Your task to perform on an android device: Open ESPN.com Image 0: 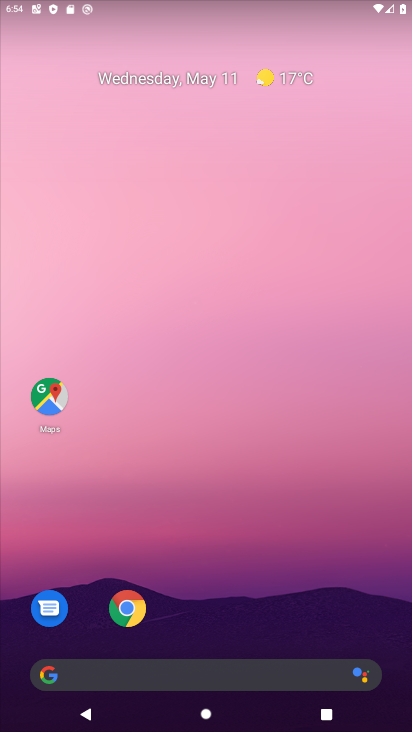
Step 0: click (144, 608)
Your task to perform on an android device: Open ESPN.com Image 1: 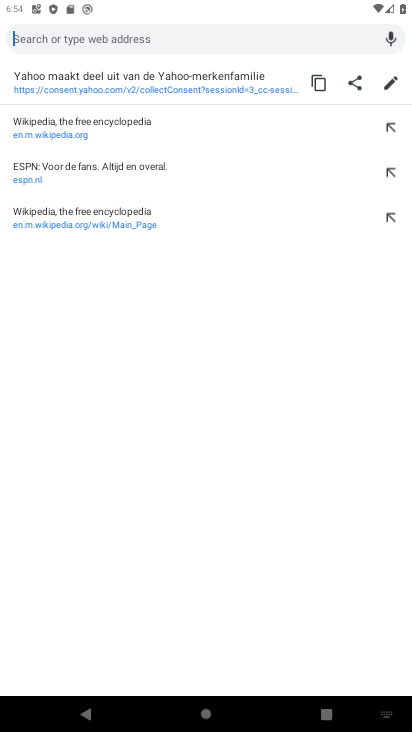
Step 1: click (138, 152)
Your task to perform on an android device: Open ESPN.com Image 2: 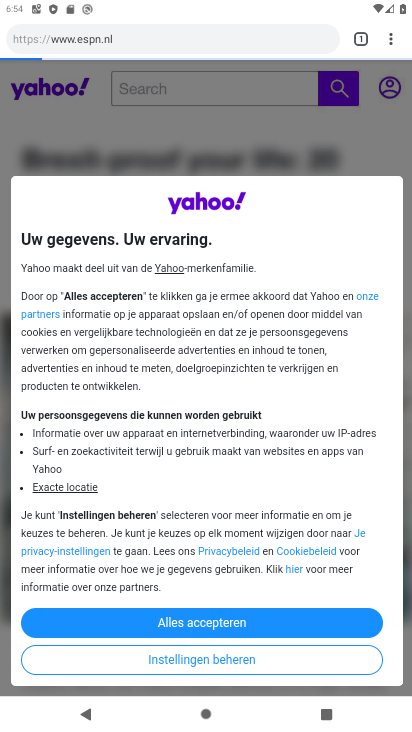
Step 2: task complete